Your task to perform on an android device: check google app version Image 0: 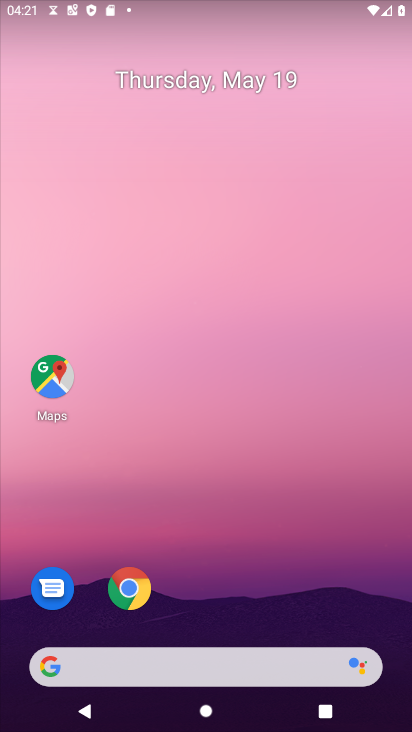
Step 0: click (183, 668)
Your task to perform on an android device: check google app version Image 1: 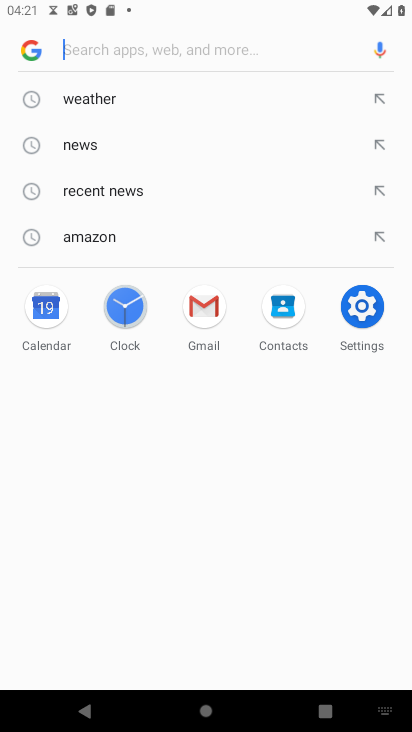
Step 1: click (31, 41)
Your task to perform on an android device: check google app version Image 2: 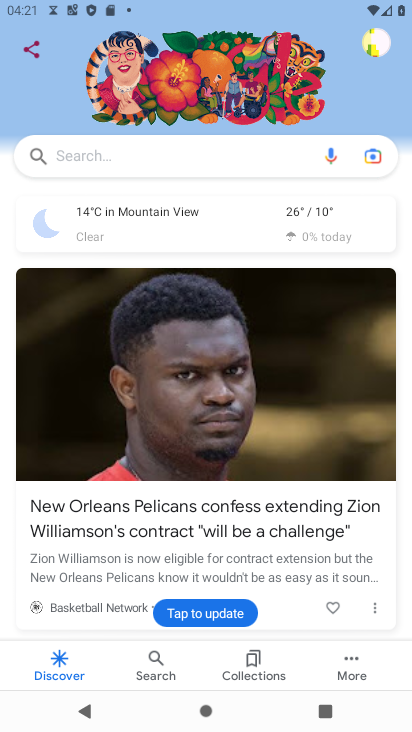
Step 2: click (352, 656)
Your task to perform on an android device: check google app version Image 3: 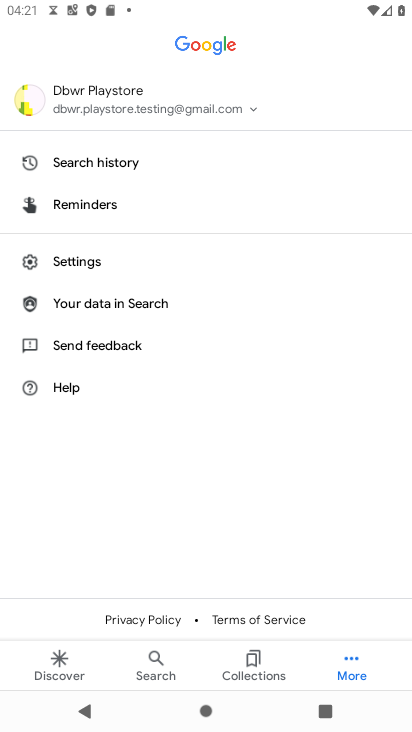
Step 3: click (86, 258)
Your task to perform on an android device: check google app version Image 4: 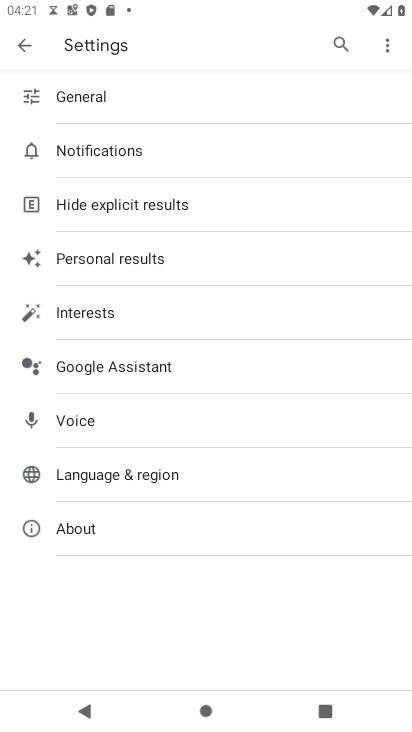
Step 4: click (99, 530)
Your task to perform on an android device: check google app version Image 5: 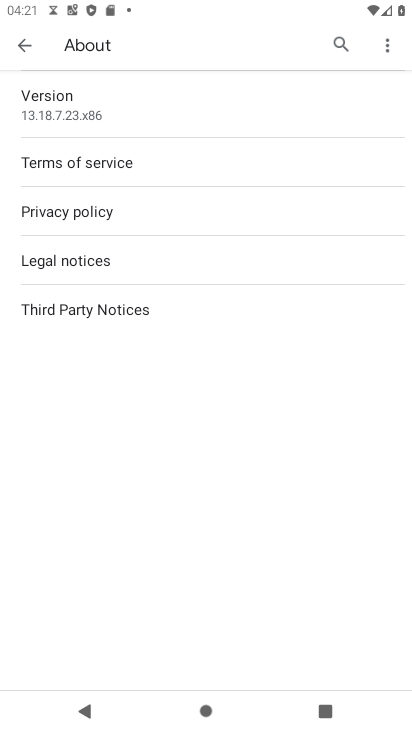
Step 5: task complete